Your task to perform on an android device: Check the news Image 0: 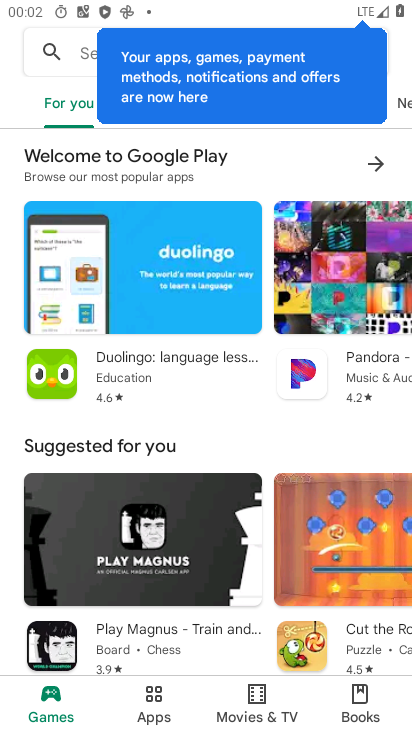
Step 0: press home button
Your task to perform on an android device: Check the news Image 1: 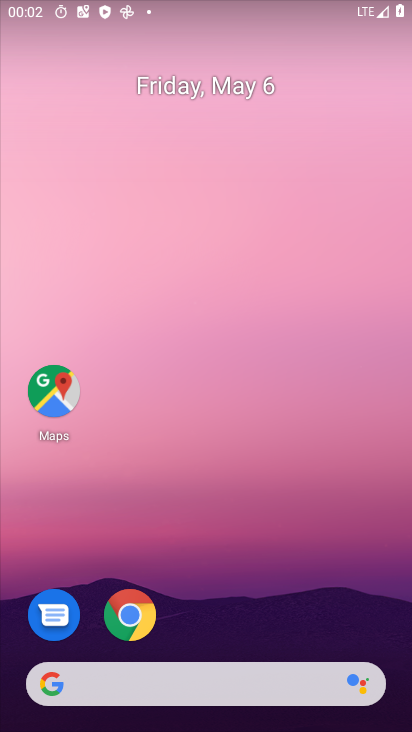
Step 1: drag from (213, 607) to (228, 29)
Your task to perform on an android device: Check the news Image 2: 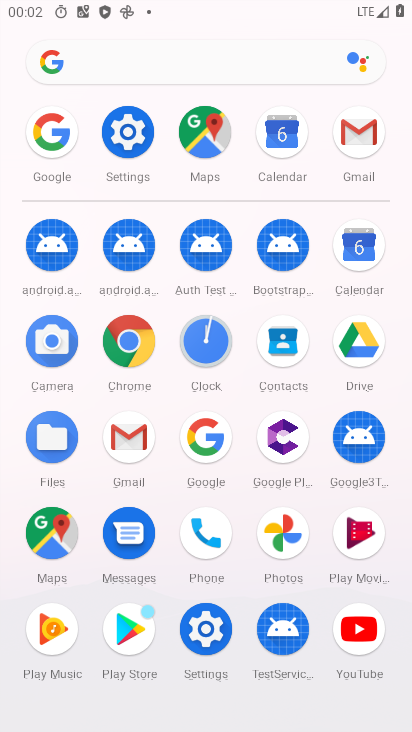
Step 2: click (206, 442)
Your task to perform on an android device: Check the news Image 3: 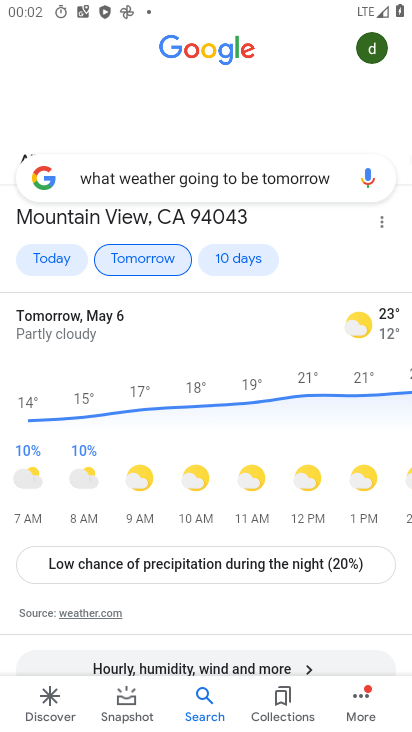
Step 3: click (341, 179)
Your task to perform on an android device: Check the news Image 4: 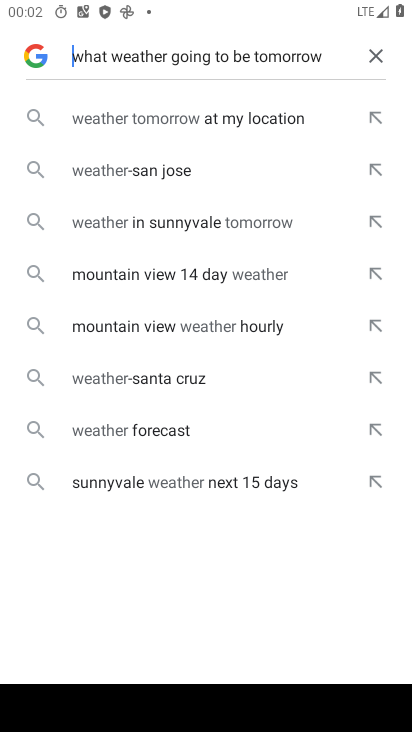
Step 4: click (368, 55)
Your task to perform on an android device: Check the news Image 5: 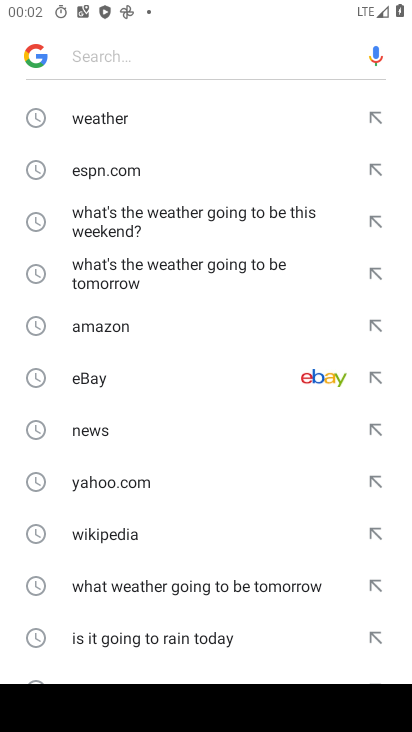
Step 5: click (117, 428)
Your task to perform on an android device: Check the news Image 6: 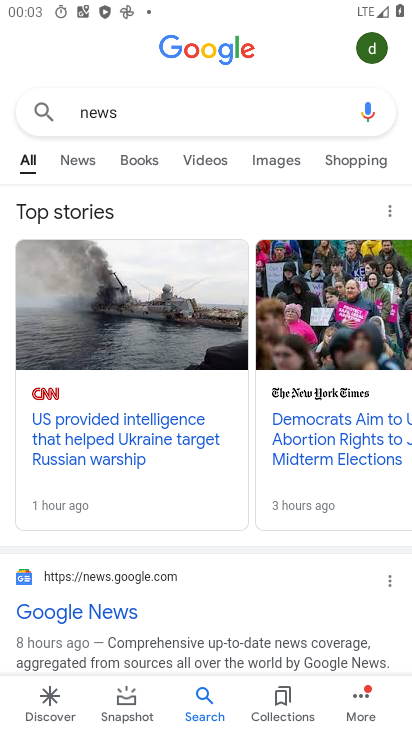
Step 6: task complete